Your task to perform on an android device: open chrome and create a bookmark for the current page Image 0: 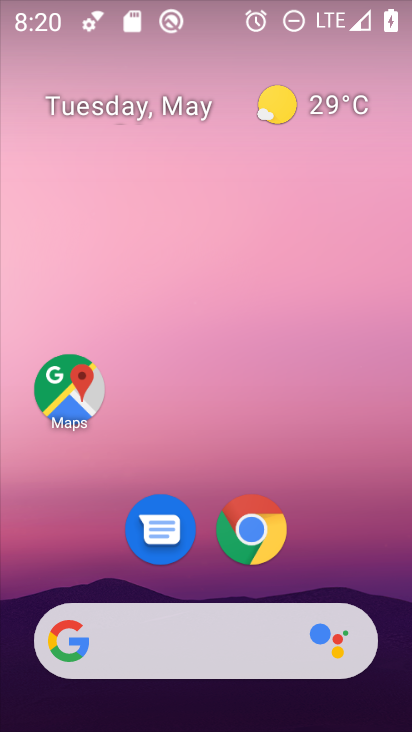
Step 0: drag from (387, 634) to (293, 121)
Your task to perform on an android device: open chrome and create a bookmark for the current page Image 1: 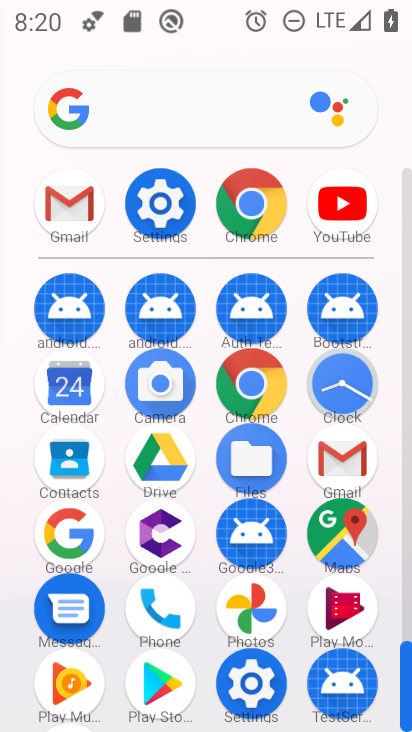
Step 1: click (250, 394)
Your task to perform on an android device: open chrome and create a bookmark for the current page Image 2: 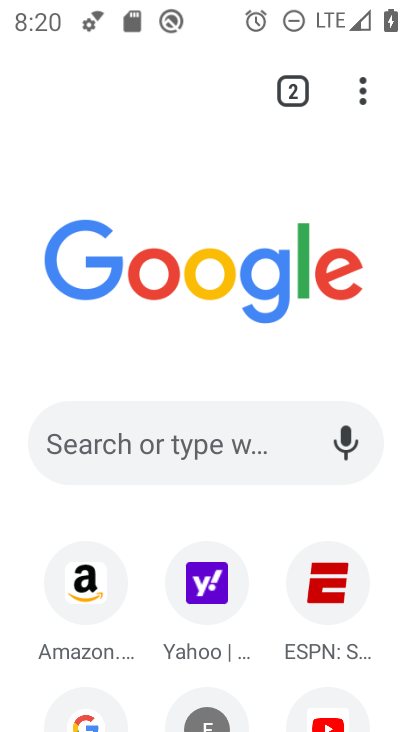
Step 2: click (366, 94)
Your task to perform on an android device: open chrome and create a bookmark for the current page Image 3: 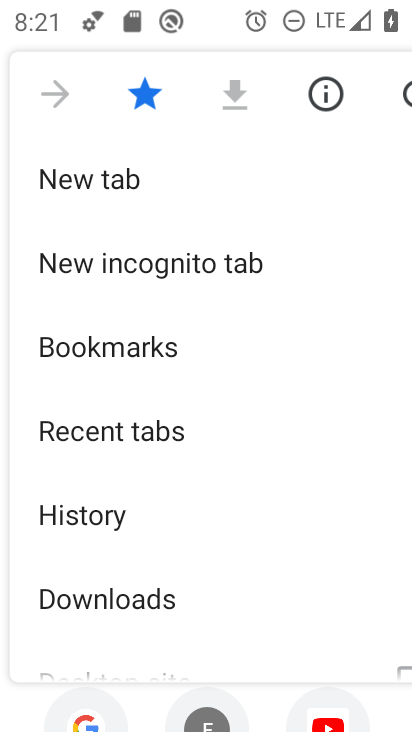
Step 3: task complete